Your task to perform on an android device: Open Chrome and go to settings Image 0: 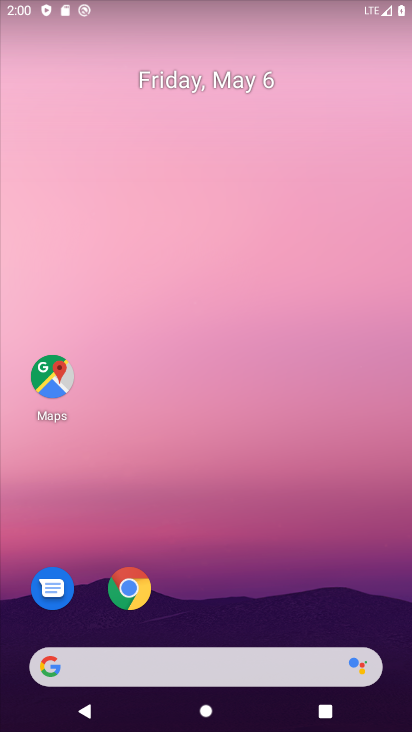
Step 0: drag from (362, 585) to (340, 175)
Your task to perform on an android device: Open Chrome and go to settings Image 1: 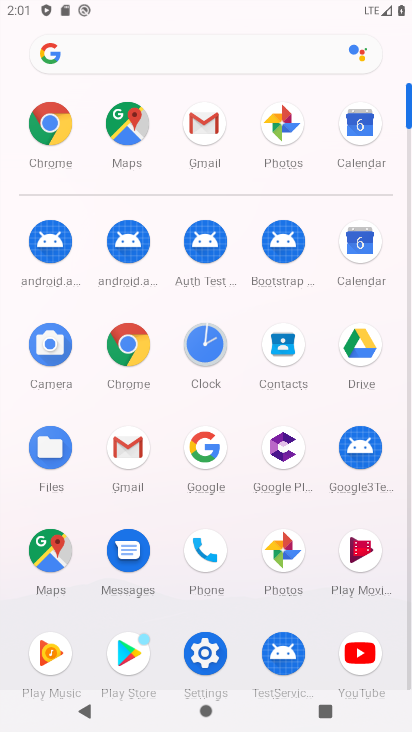
Step 1: click (133, 353)
Your task to perform on an android device: Open Chrome and go to settings Image 2: 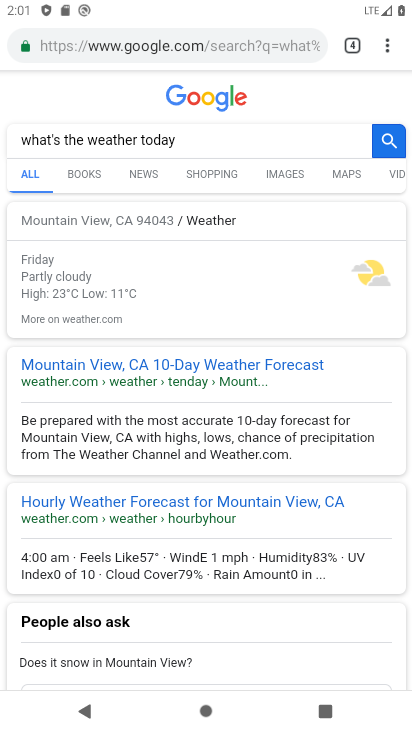
Step 2: task complete